Your task to perform on an android device: empty trash in the gmail app Image 0: 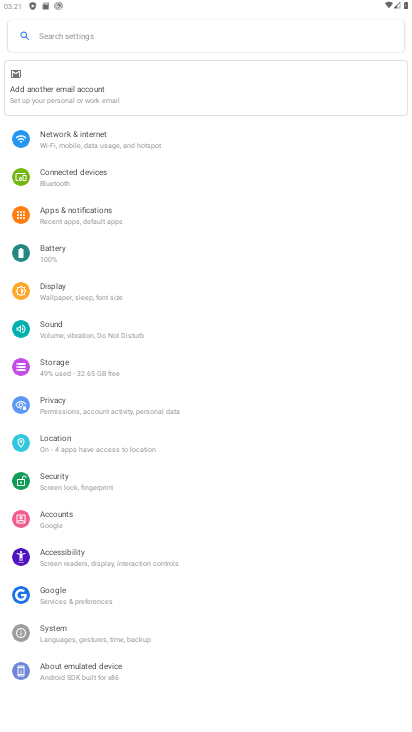
Step 0: press home button
Your task to perform on an android device: empty trash in the gmail app Image 1: 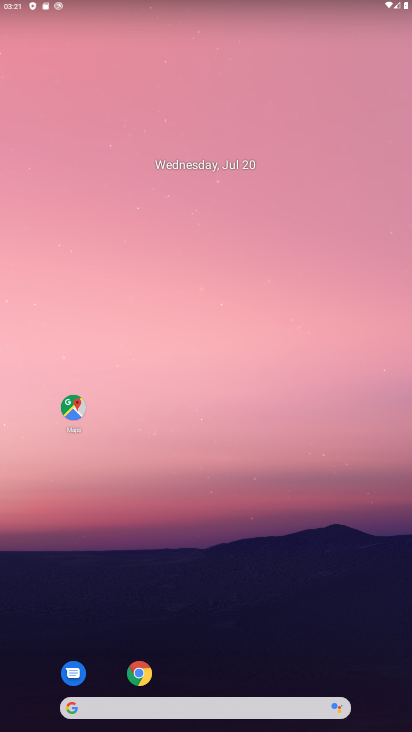
Step 1: drag from (279, 619) to (282, 113)
Your task to perform on an android device: empty trash in the gmail app Image 2: 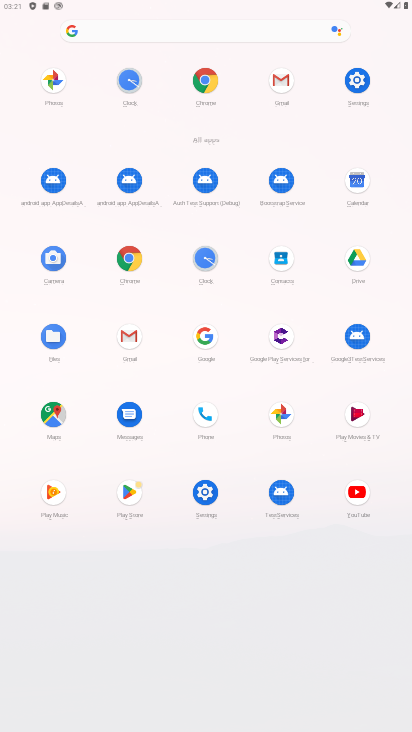
Step 2: click (126, 330)
Your task to perform on an android device: empty trash in the gmail app Image 3: 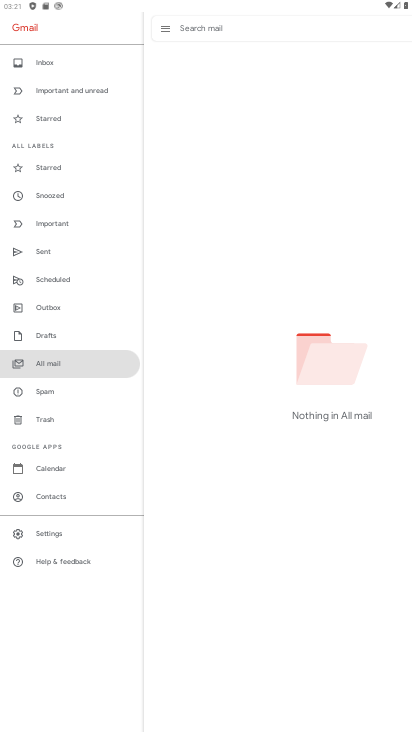
Step 3: click (56, 391)
Your task to perform on an android device: empty trash in the gmail app Image 4: 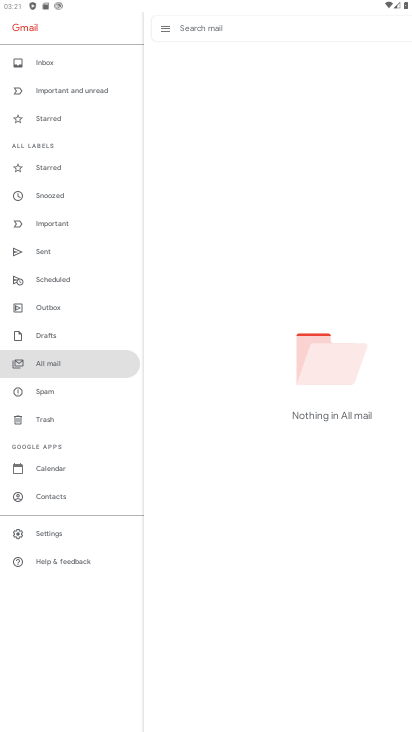
Step 4: click (57, 426)
Your task to perform on an android device: empty trash in the gmail app Image 5: 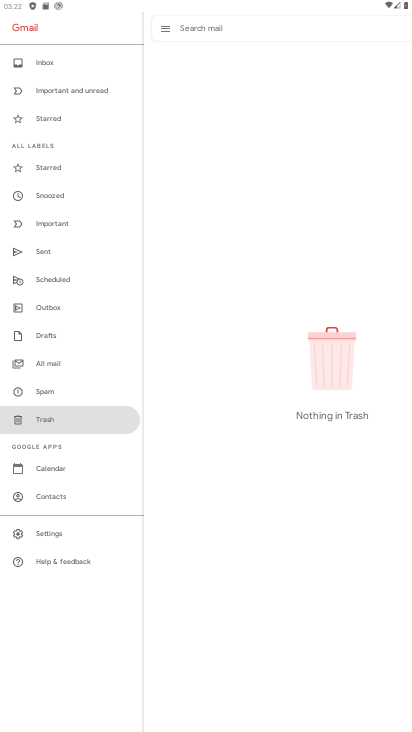
Step 5: task complete